Your task to perform on an android device: Open the camera Image 0: 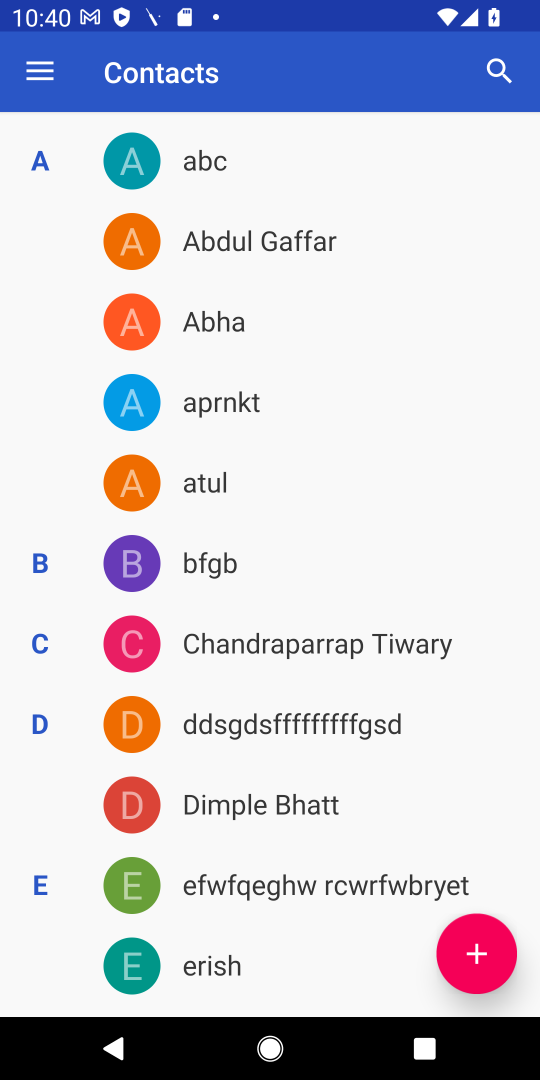
Step 0: press home button
Your task to perform on an android device: Open the camera Image 1: 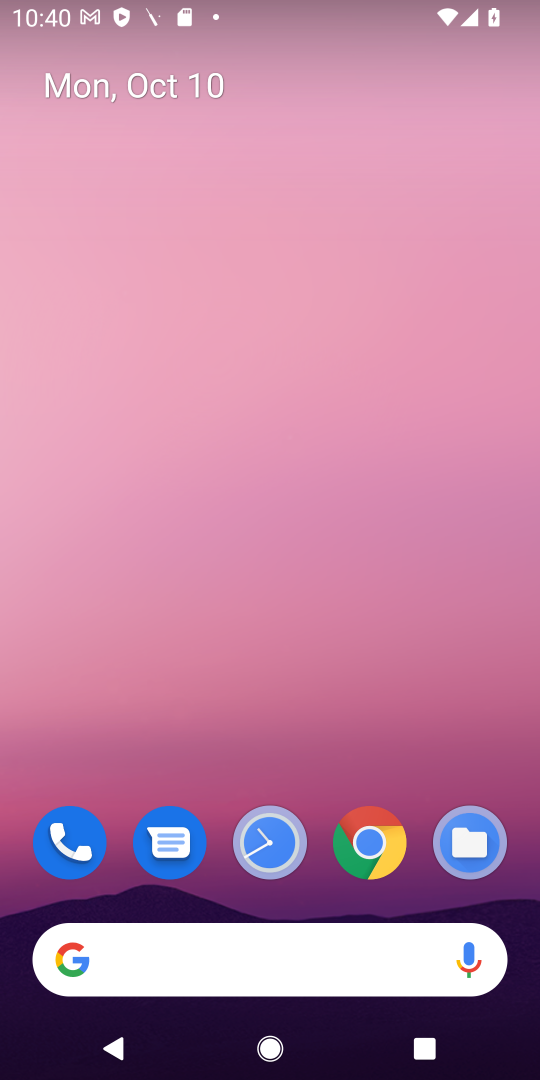
Step 1: drag from (324, 708) to (305, 54)
Your task to perform on an android device: Open the camera Image 2: 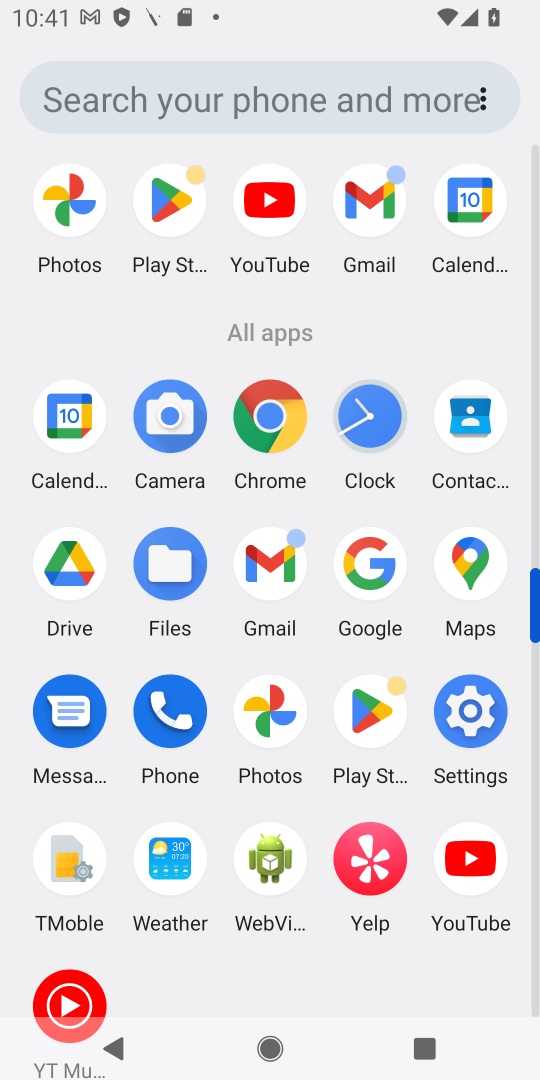
Step 2: click (155, 422)
Your task to perform on an android device: Open the camera Image 3: 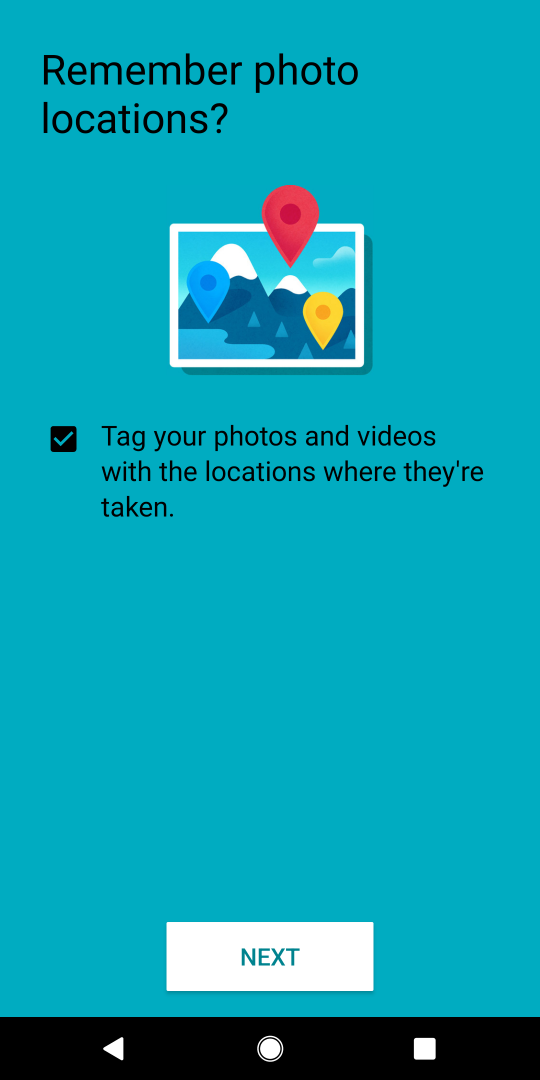
Step 3: click (297, 952)
Your task to perform on an android device: Open the camera Image 4: 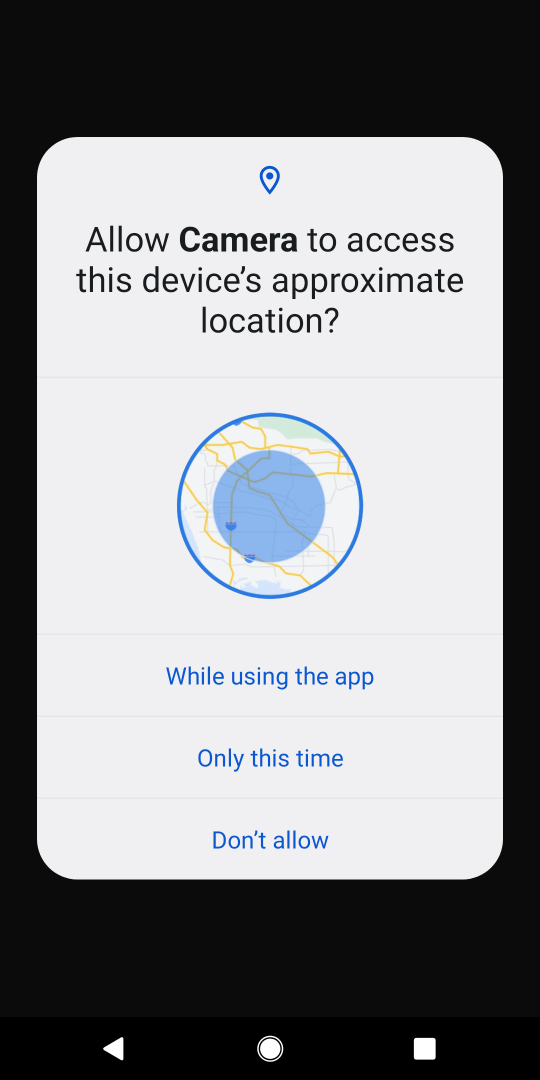
Step 4: click (270, 839)
Your task to perform on an android device: Open the camera Image 5: 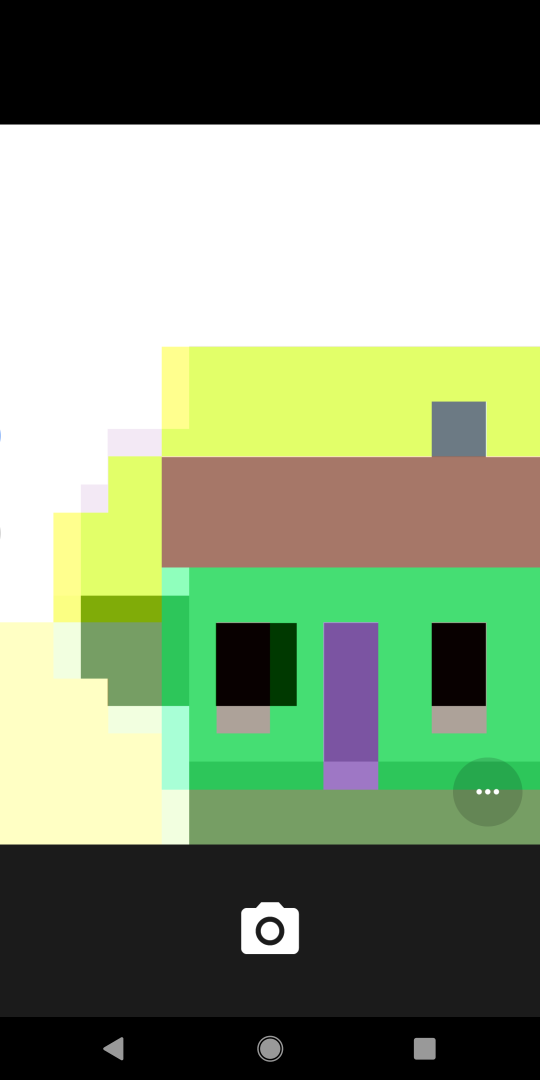
Step 5: task complete